Your task to perform on an android device: turn off javascript in the chrome app Image 0: 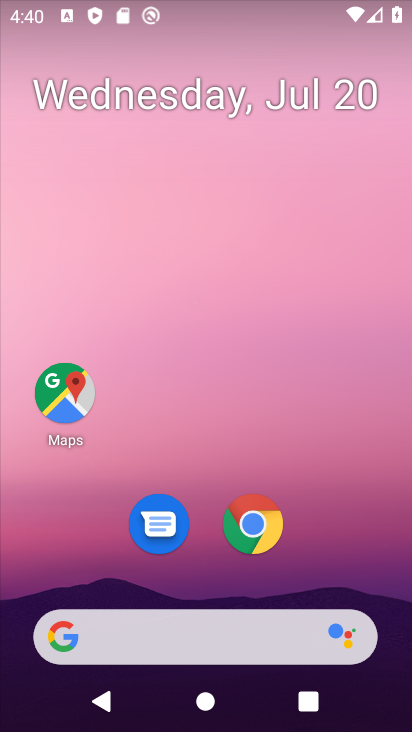
Step 0: click (251, 518)
Your task to perform on an android device: turn off javascript in the chrome app Image 1: 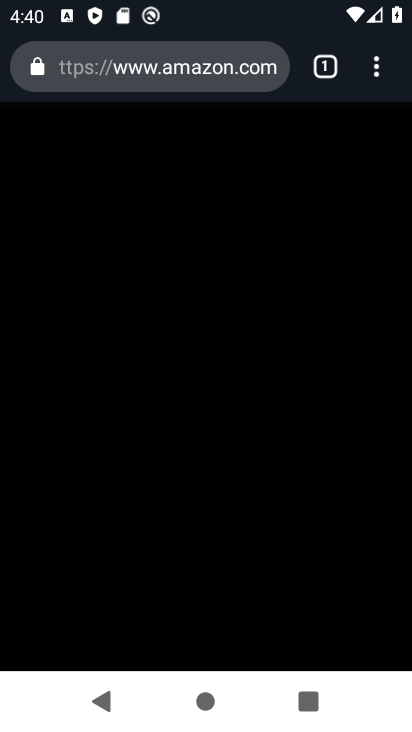
Step 1: click (379, 67)
Your task to perform on an android device: turn off javascript in the chrome app Image 2: 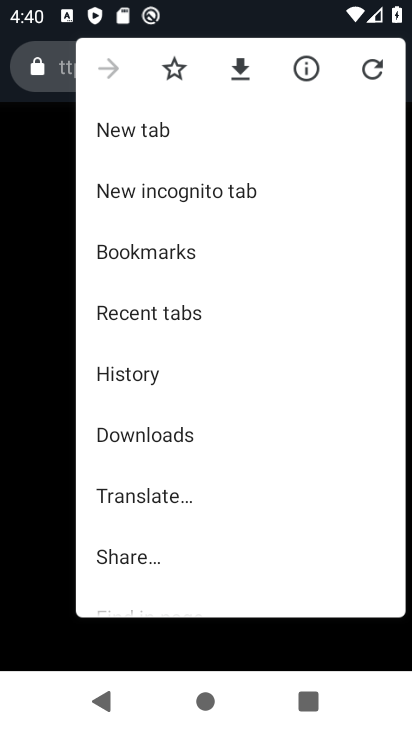
Step 2: drag from (232, 507) to (241, 112)
Your task to perform on an android device: turn off javascript in the chrome app Image 3: 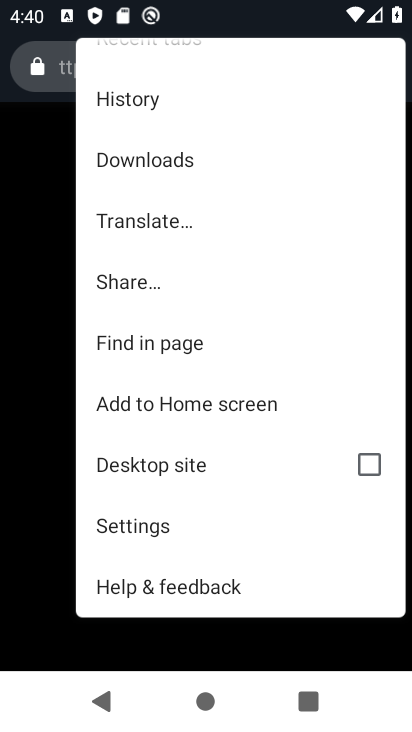
Step 3: click (162, 516)
Your task to perform on an android device: turn off javascript in the chrome app Image 4: 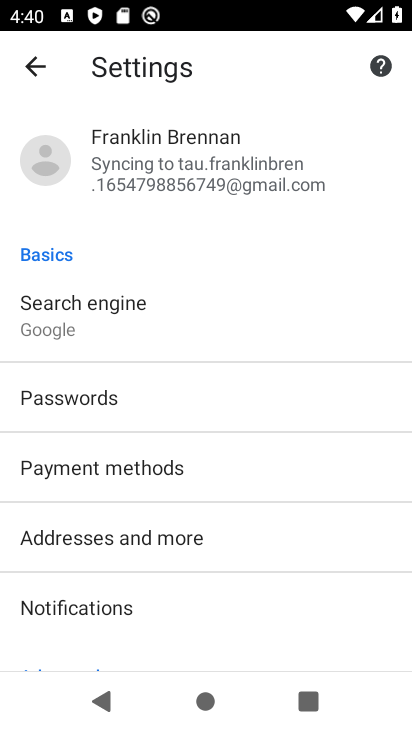
Step 4: drag from (226, 557) to (232, 110)
Your task to perform on an android device: turn off javascript in the chrome app Image 5: 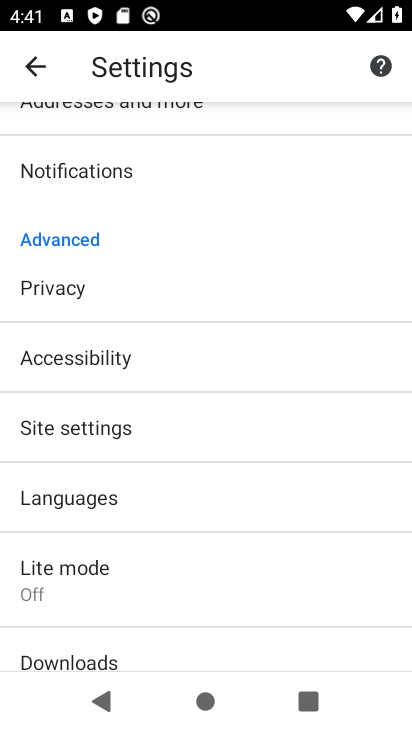
Step 5: click (126, 419)
Your task to perform on an android device: turn off javascript in the chrome app Image 6: 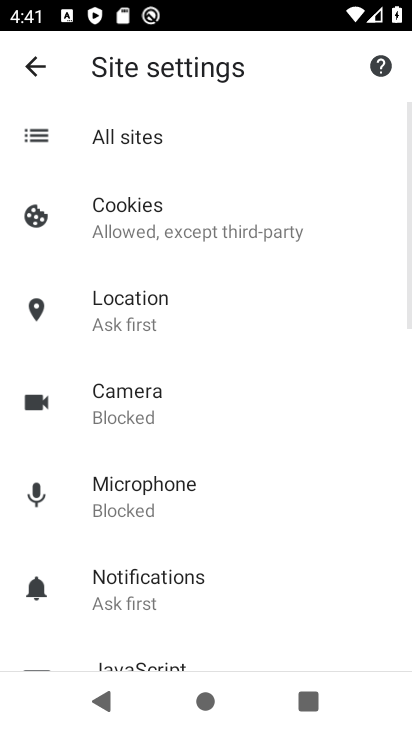
Step 6: drag from (230, 528) to (230, 194)
Your task to perform on an android device: turn off javascript in the chrome app Image 7: 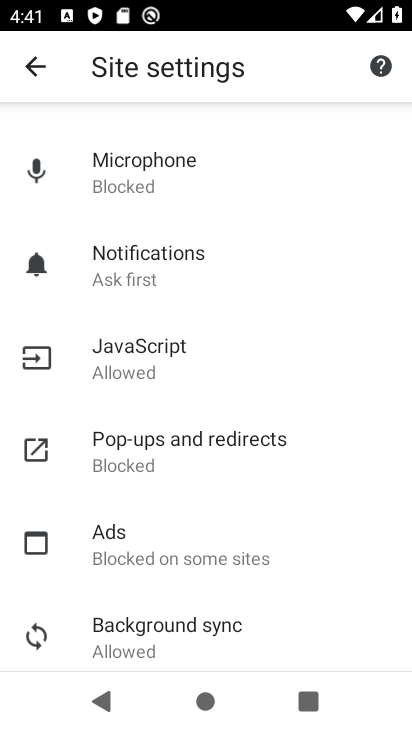
Step 7: click (186, 346)
Your task to perform on an android device: turn off javascript in the chrome app Image 8: 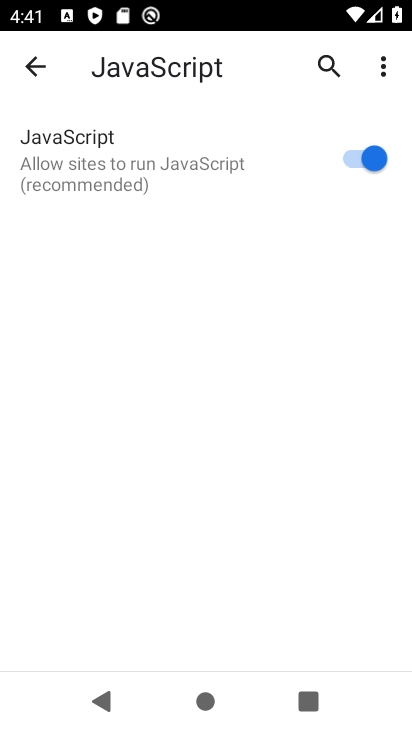
Step 8: click (355, 153)
Your task to perform on an android device: turn off javascript in the chrome app Image 9: 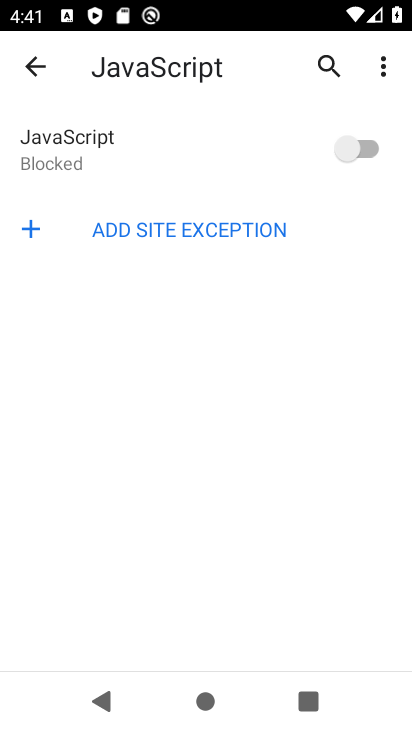
Step 9: task complete